Your task to perform on an android device: Add "usb-c" to the cart on bestbuy, then select checkout. Image 0: 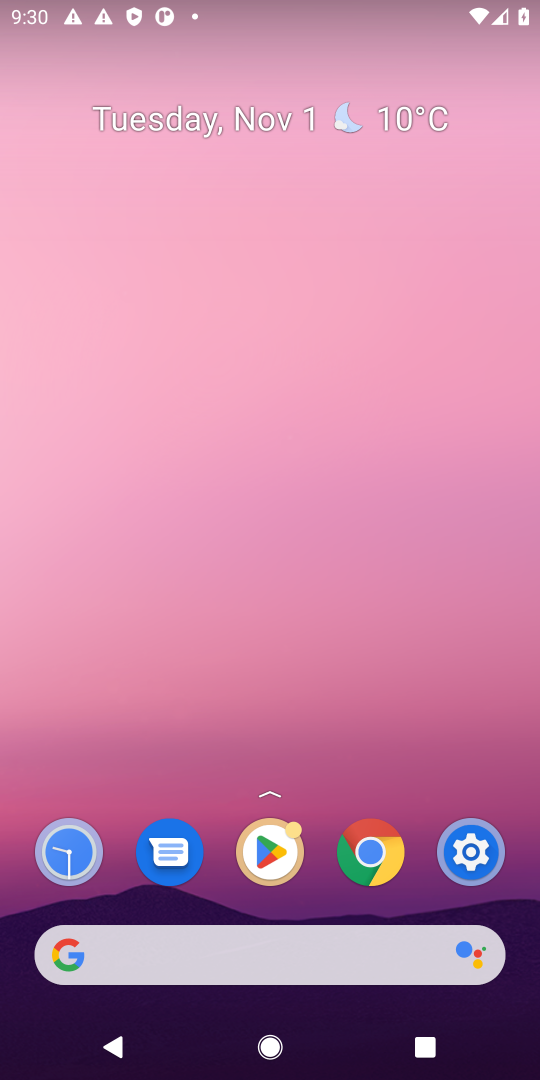
Step 0: press home button
Your task to perform on an android device: Add "usb-c" to the cart on bestbuy, then select checkout. Image 1: 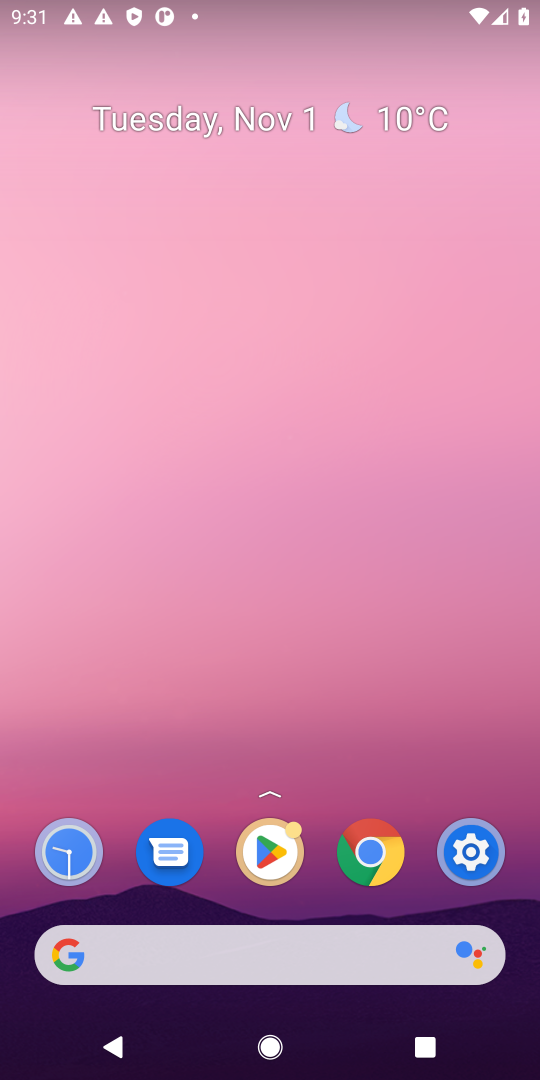
Step 1: click (63, 964)
Your task to perform on an android device: Add "usb-c" to the cart on bestbuy, then select checkout. Image 2: 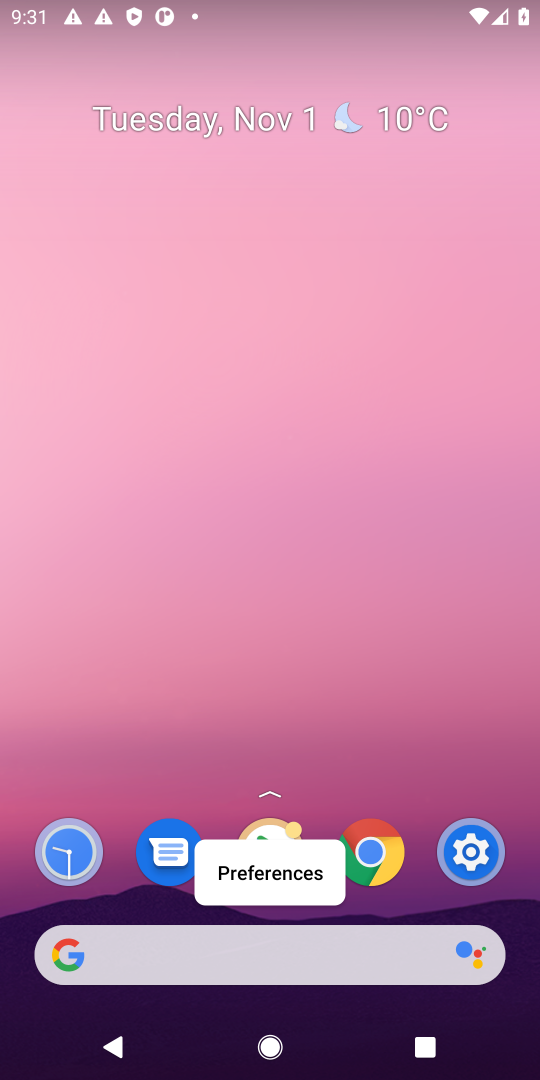
Step 2: click (70, 955)
Your task to perform on an android device: Add "usb-c" to the cart on bestbuy, then select checkout. Image 3: 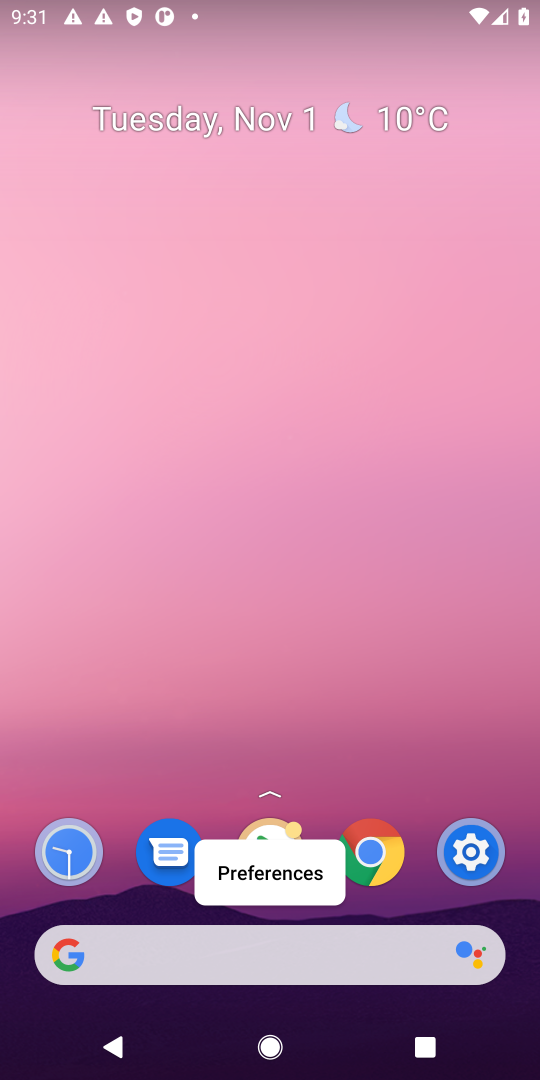
Step 3: click (75, 950)
Your task to perform on an android device: Add "usb-c" to the cart on bestbuy, then select checkout. Image 4: 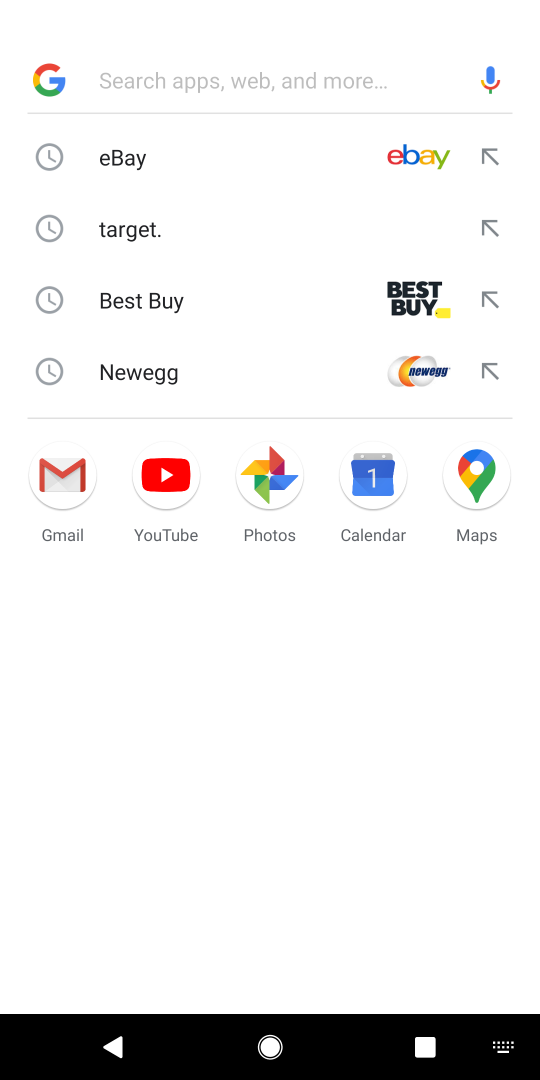
Step 4: click (127, 297)
Your task to perform on an android device: Add "usb-c" to the cart on bestbuy, then select checkout. Image 5: 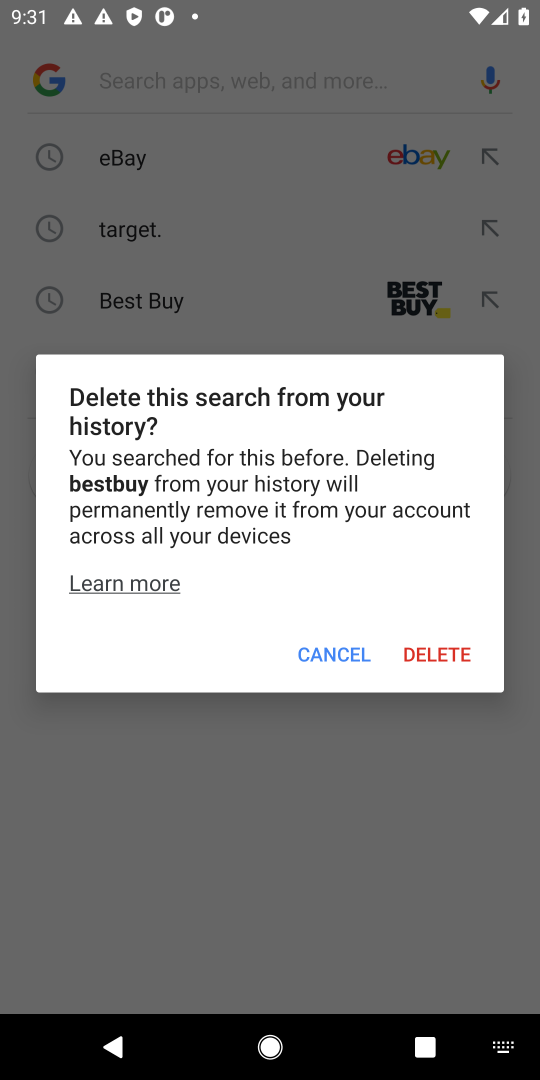
Step 5: click (315, 657)
Your task to perform on an android device: Add "usb-c" to the cart on bestbuy, then select checkout. Image 6: 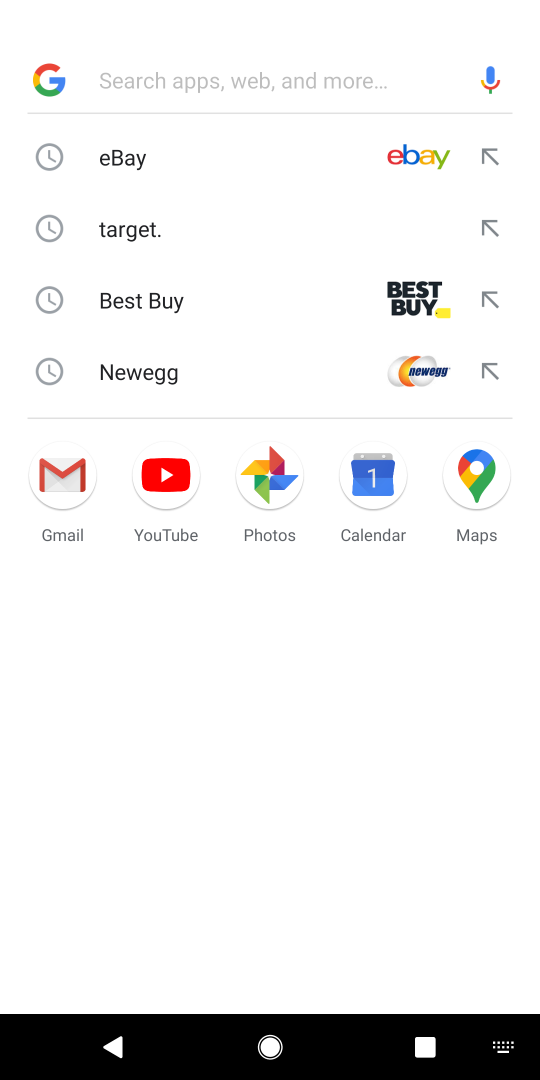
Step 6: click (428, 158)
Your task to perform on an android device: Add "usb-c" to the cart on bestbuy, then select checkout. Image 7: 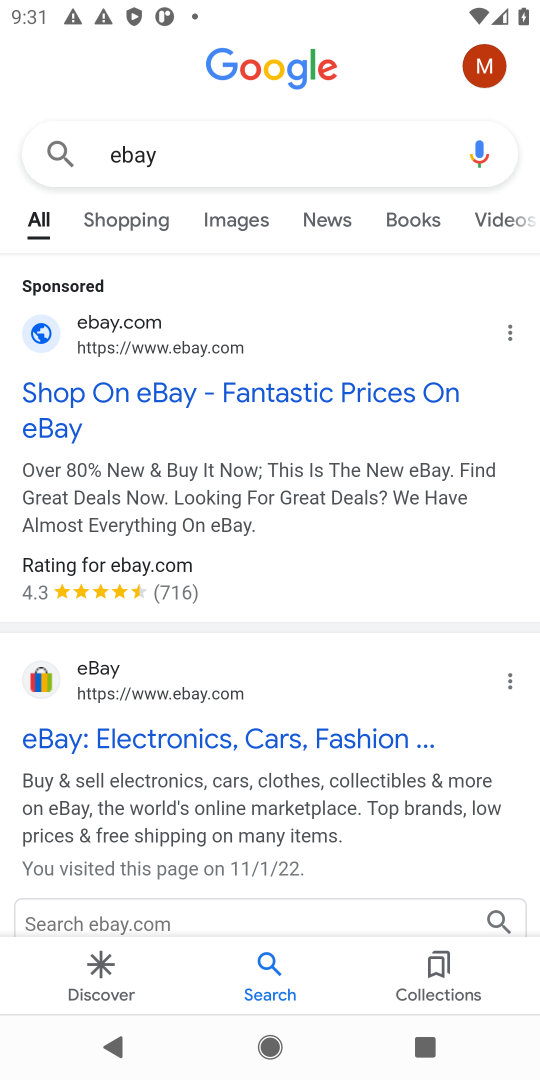
Step 7: click (279, 155)
Your task to perform on an android device: Add "usb-c" to the cart on bestbuy, then select checkout. Image 8: 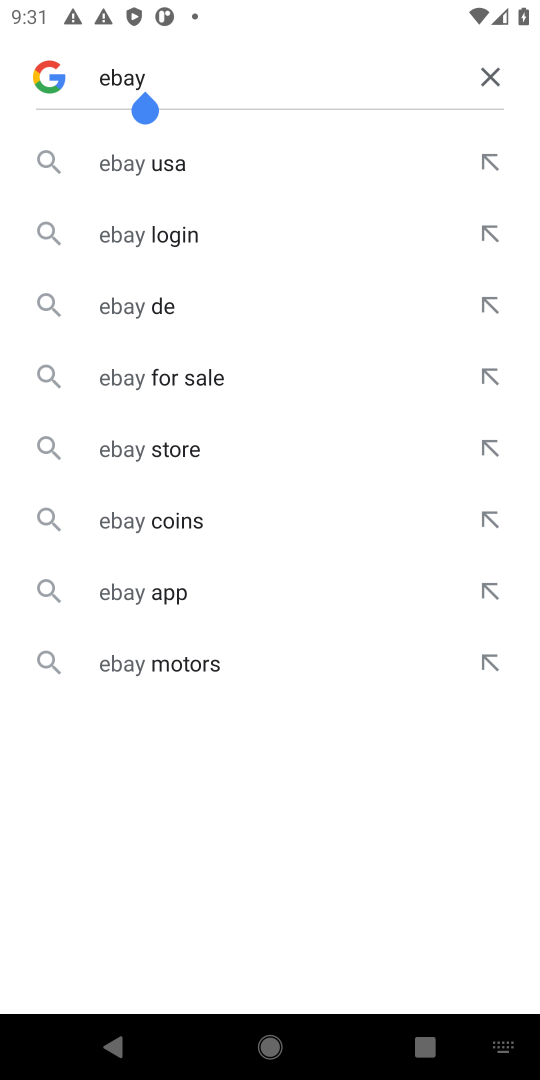
Step 8: click (491, 72)
Your task to perform on an android device: Add "usb-c" to the cart on bestbuy, then select checkout. Image 9: 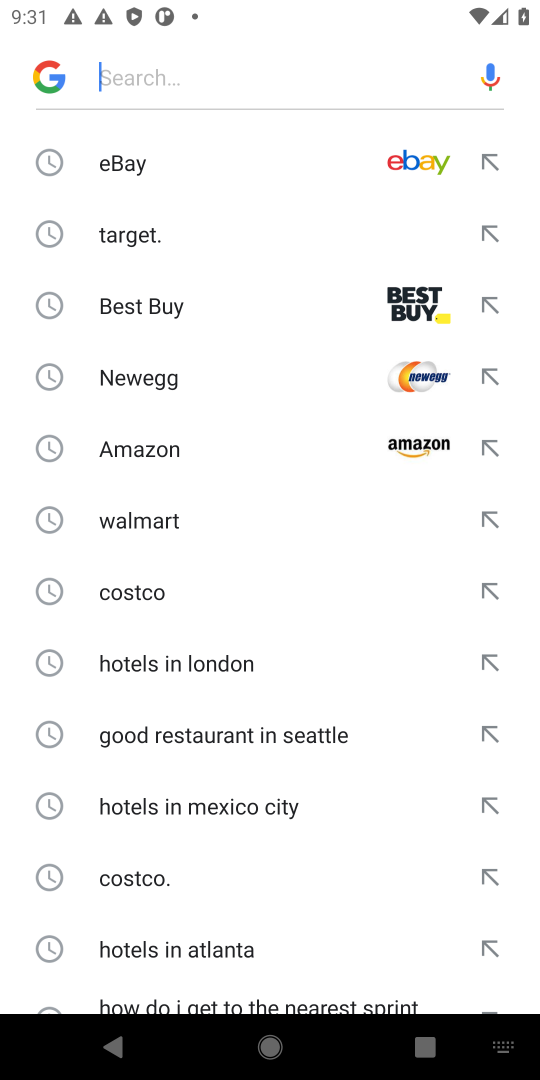
Step 9: click (136, 307)
Your task to perform on an android device: Add "usb-c" to the cart on bestbuy, then select checkout. Image 10: 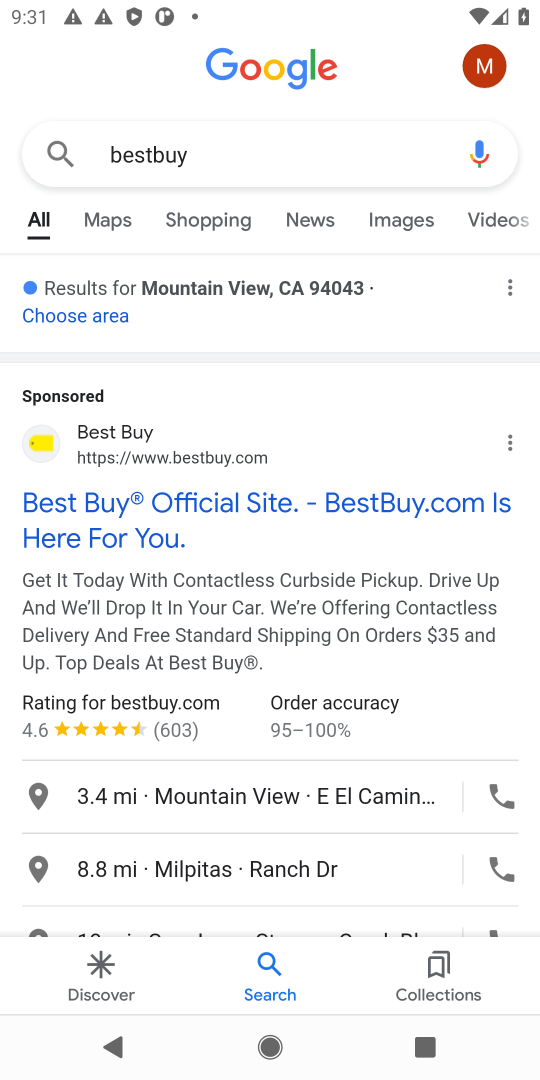
Step 10: drag from (430, 725) to (418, 307)
Your task to perform on an android device: Add "usb-c" to the cart on bestbuy, then select checkout. Image 11: 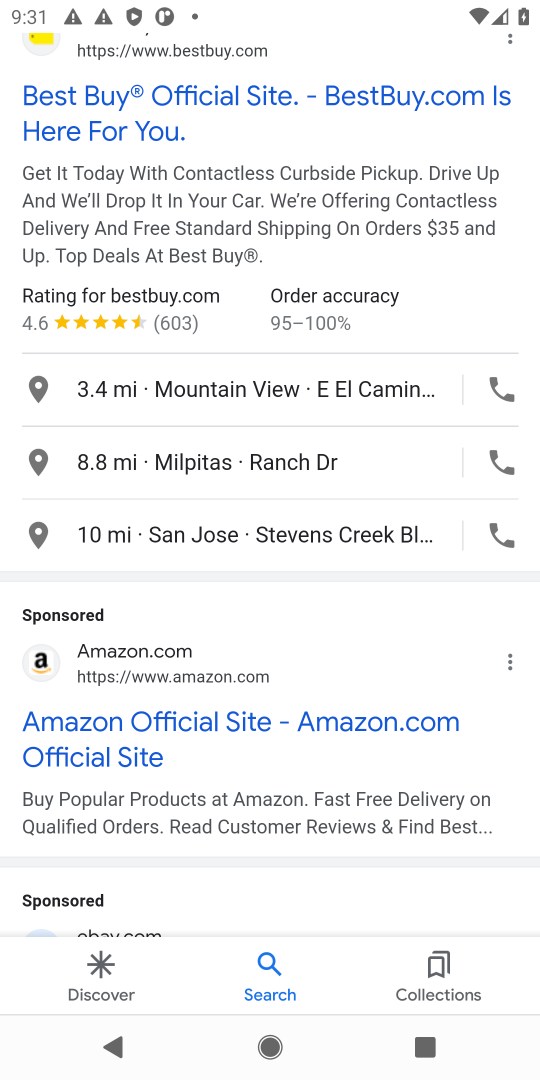
Step 11: click (136, 98)
Your task to perform on an android device: Add "usb-c" to the cart on bestbuy, then select checkout. Image 12: 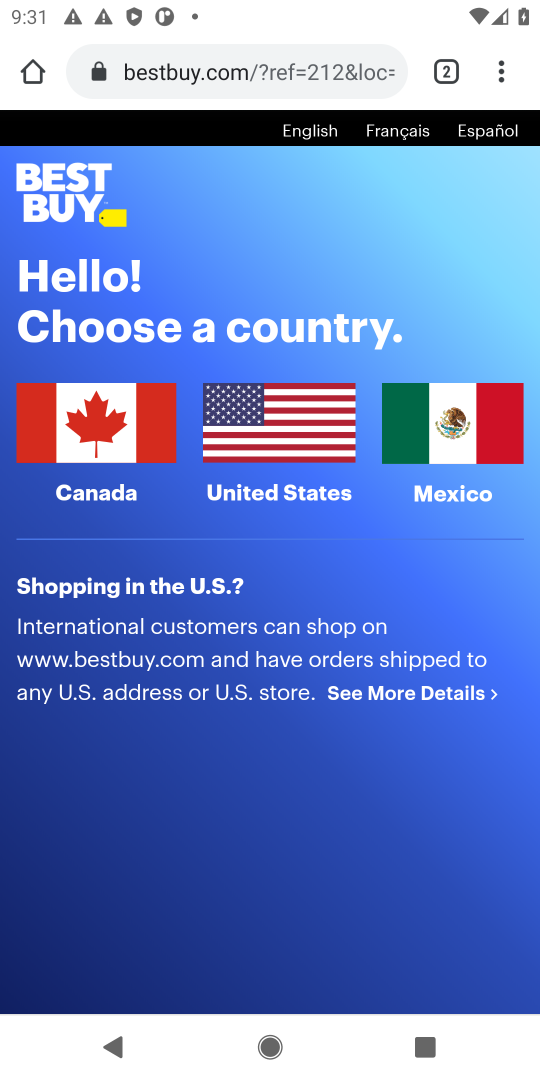
Step 12: click (250, 416)
Your task to perform on an android device: Add "usb-c" to the cart on bestbuy, then select checkout. Image 13: 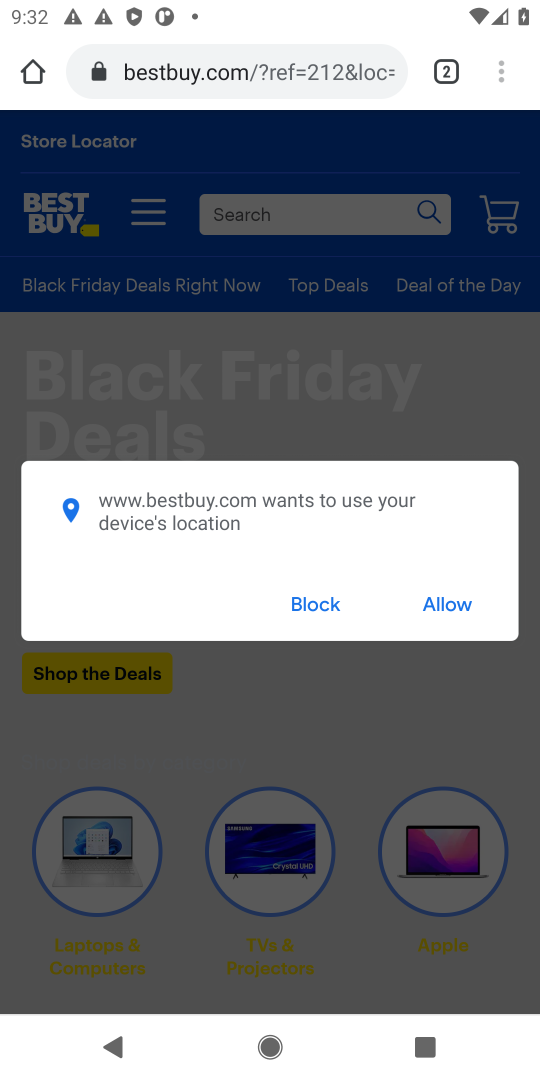
Step 13: type "usb-c"
Your task to perform on an android device: Add "usb-c" to the cart on bestbuy, then select checkout. Image 14: 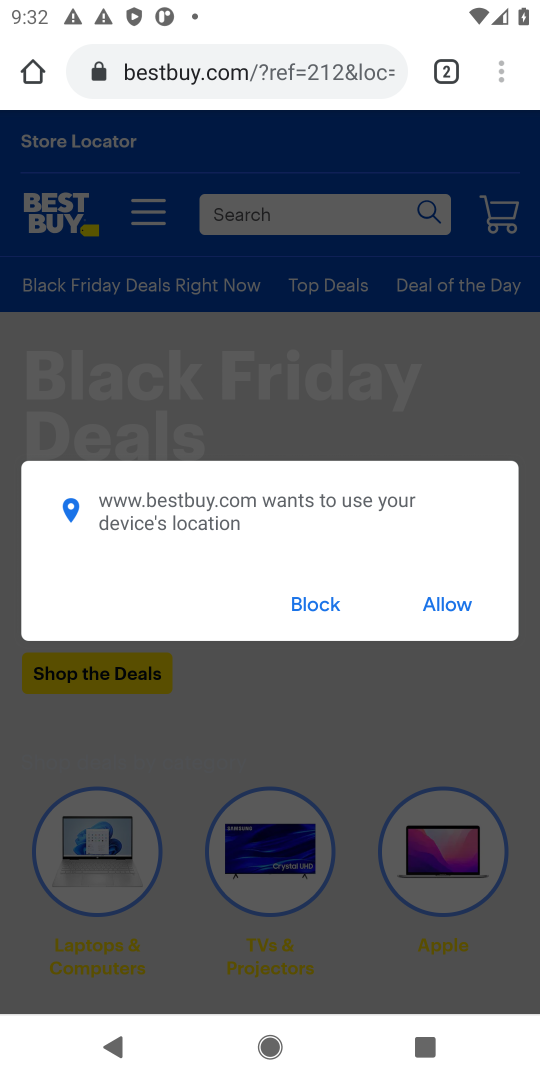
Step 14: click (458, 602)
Your task to perform on an android device: Add "usb-c" to the cart on bestbuy, then select checkout. Image 15: 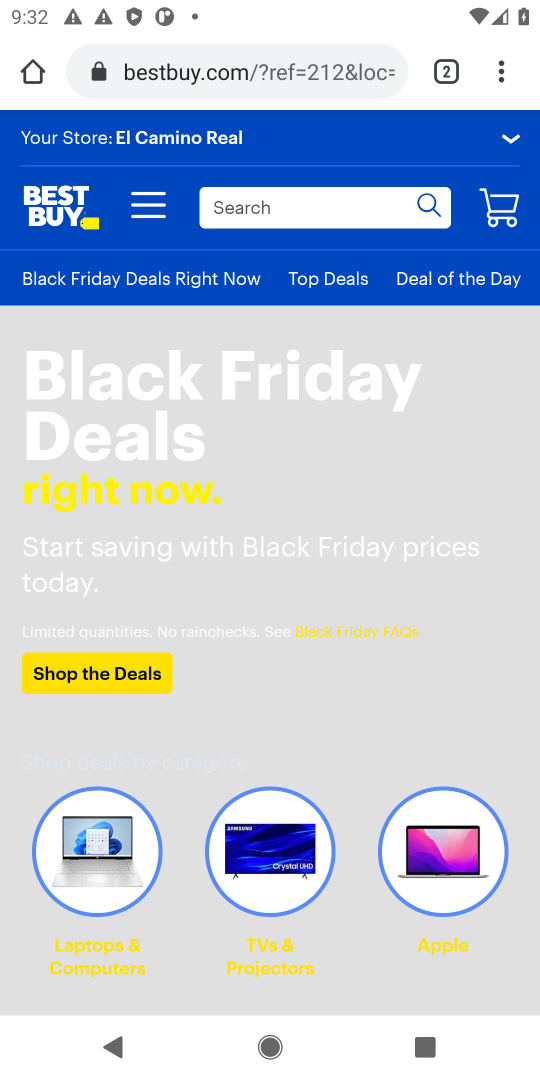
Step 15: click (289, 210)
Your task to perform on an android device: Add "usb-c" to the cart on bestbuy, then select checkout. Image 16: 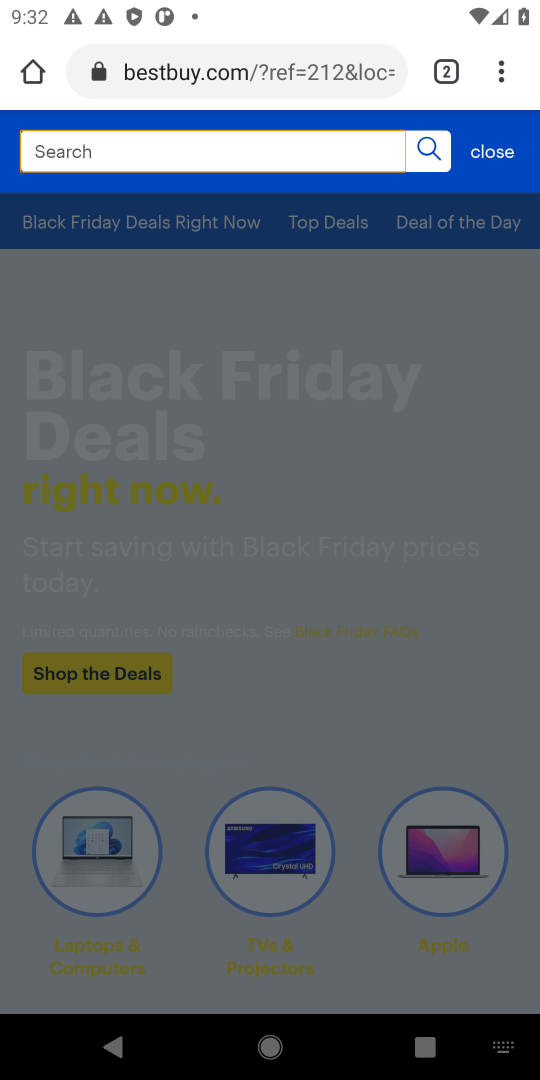
Step 16: type "usb-c"
Your task to perform on an android device: Add "usb-c" to the cart on bestbuy, then select checkout. Image 17: 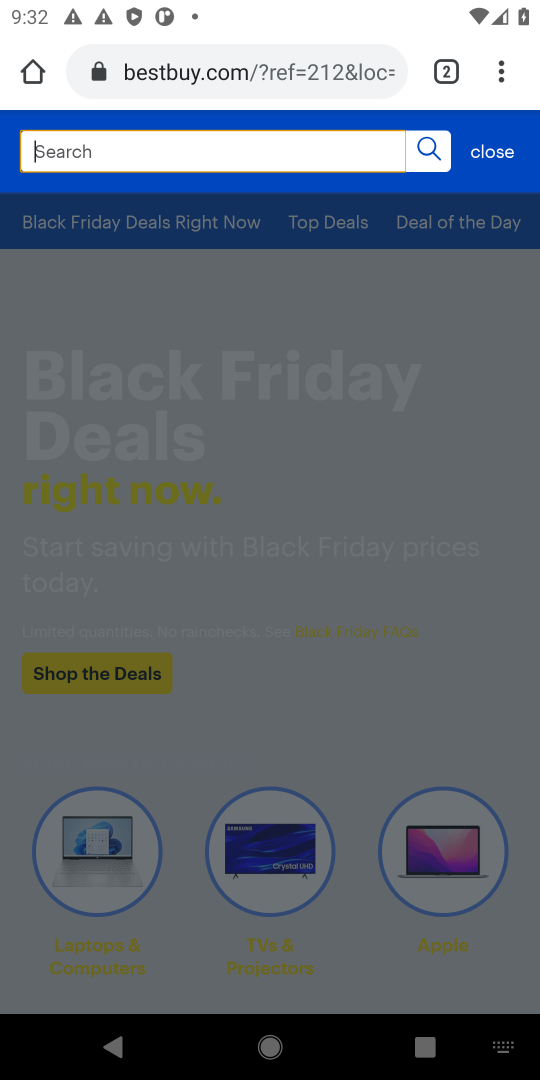
Step 17: click (97, 148)
Your task to perform on an android device: Add "usb-c" to the cart on bestbuy, then select checkout. Image 18: 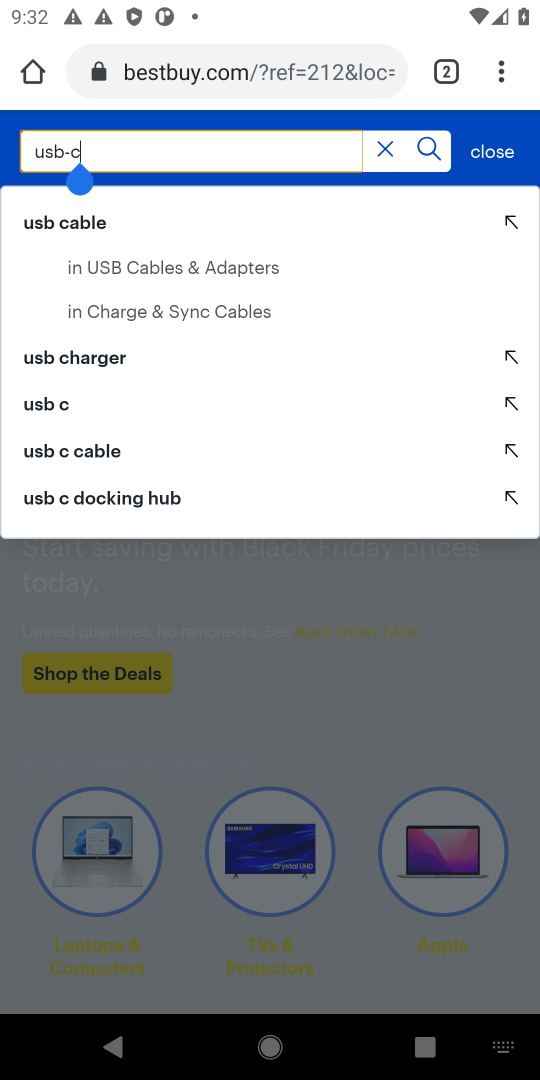
Step 18: press enter
Your task to perform on an android device: Add "usb-c" to the cart on bestbuy, then select checkout. Image 19: 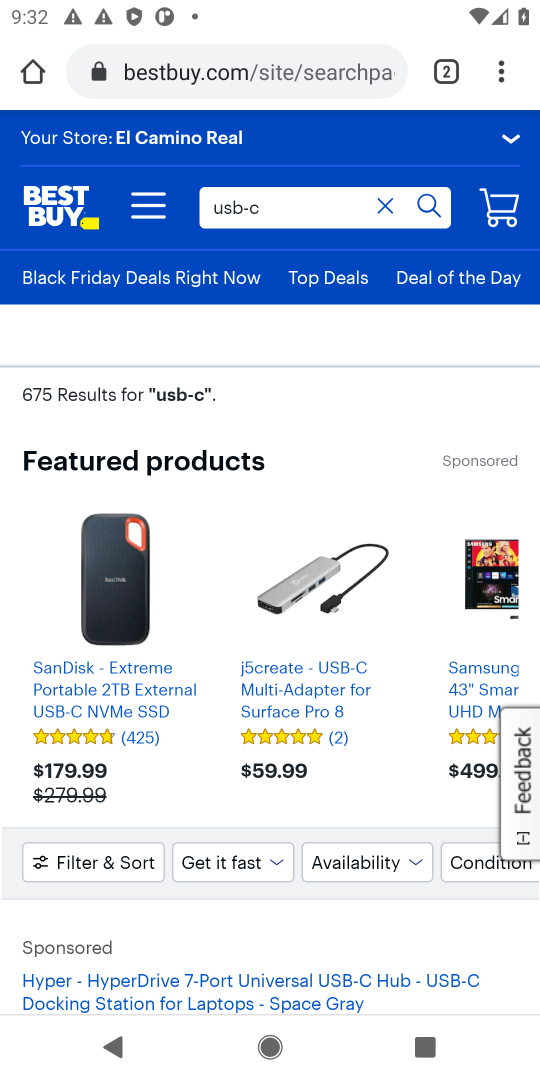
Step 19: drag from (232, 910) to (231, 407)
Your task to perform on an android device: Add "usb-c" to the cart on bestbuy, then select checkout. Image 20: 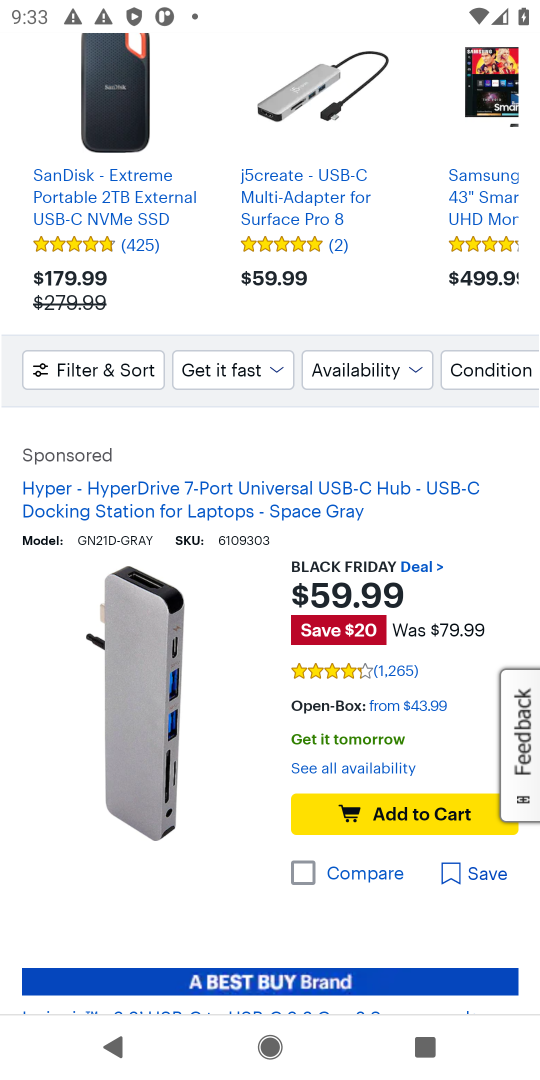
Step 20: click (205, 685)
Your task to perform on an android device: Add "usb-c" to the cart on bestbuy, then select checkout. Image 21: 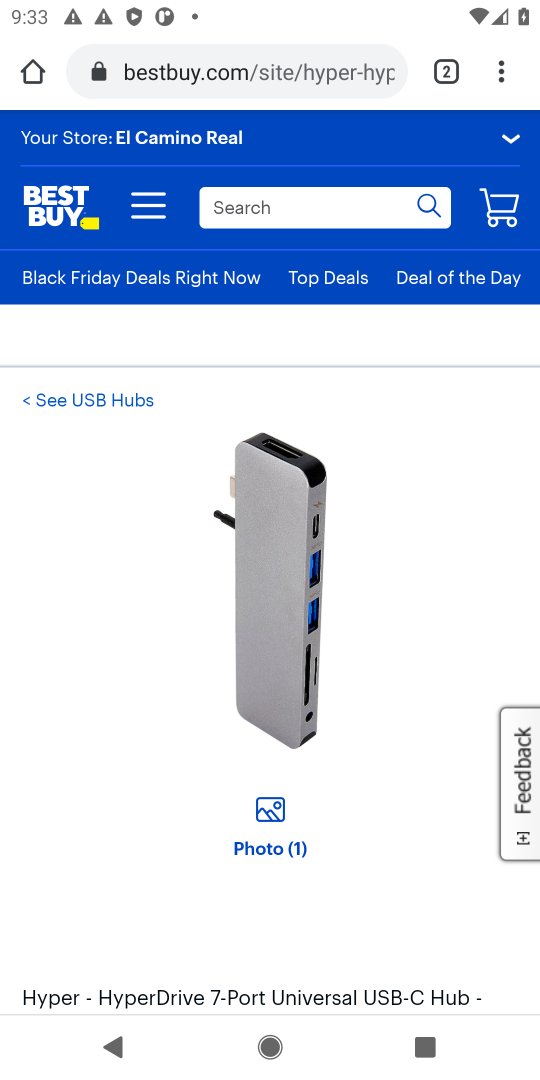
Step 21: drag from (339, 864) to (233, 86)
Your task to perform on an android device: Add "usb-c" to the cart on bestbuy, then select checkout. Image 22: 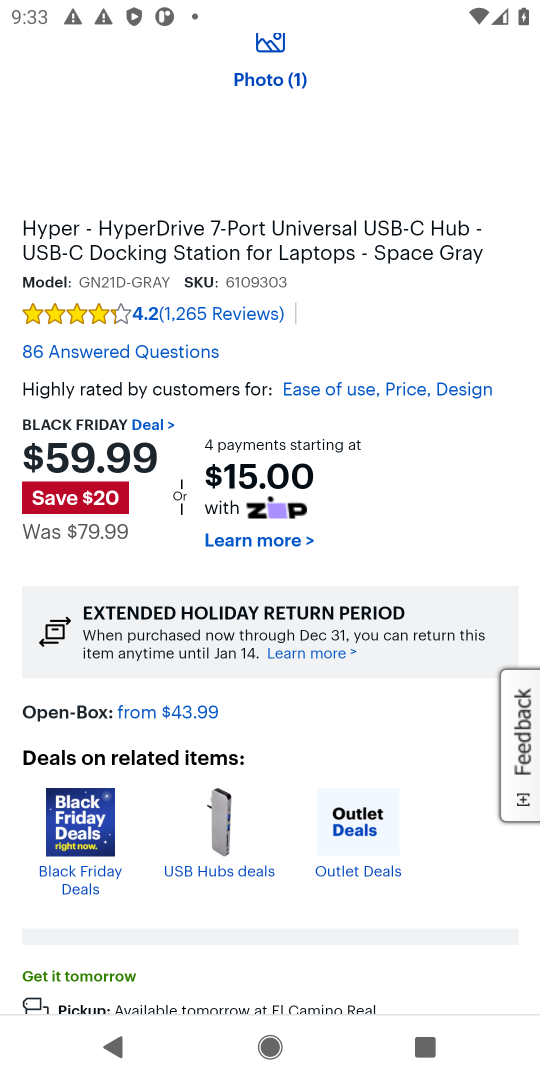
Step 22: drag from (285, 703) to (253, 244)
Your task to perform on an android device: Add "usb-c" to the cart on bestbuy, then select checkout. Image 23: 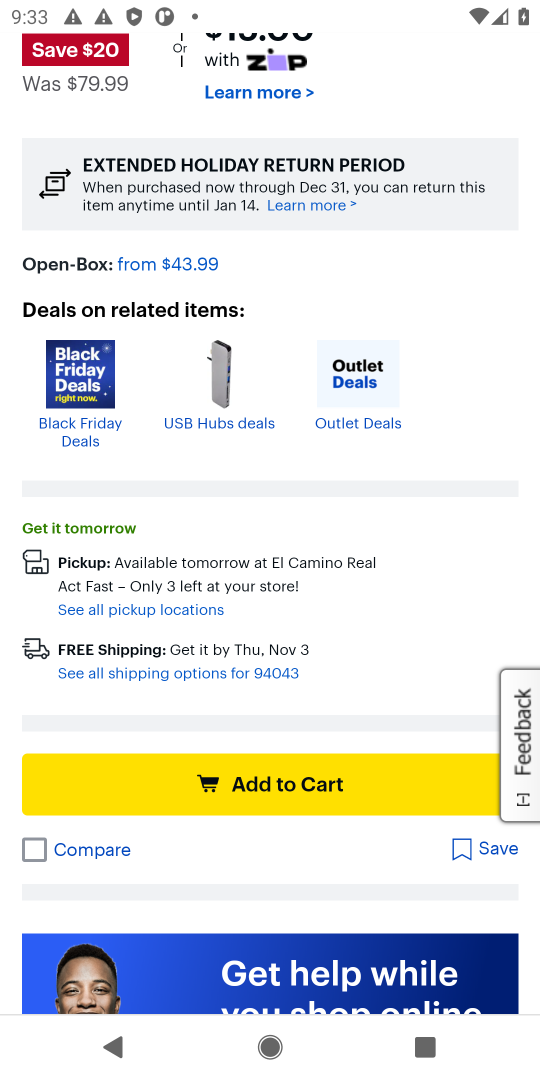
Step 23: click (258, 778)
Your task to perform on an android device: Add "usb-c" to the cart on bestbuy, then select checkout. Image 24: 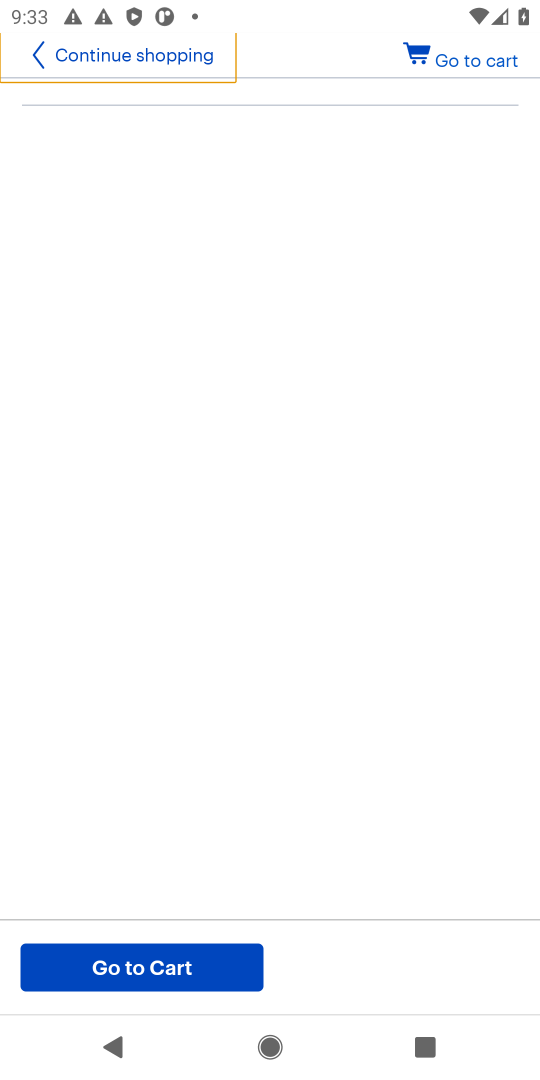
Step 24: drag from (396, 222) to (380, 748)
Your task to perform on an android device: Add "usb-c" to the cart on bestbuy, then select checkout. Image 25: 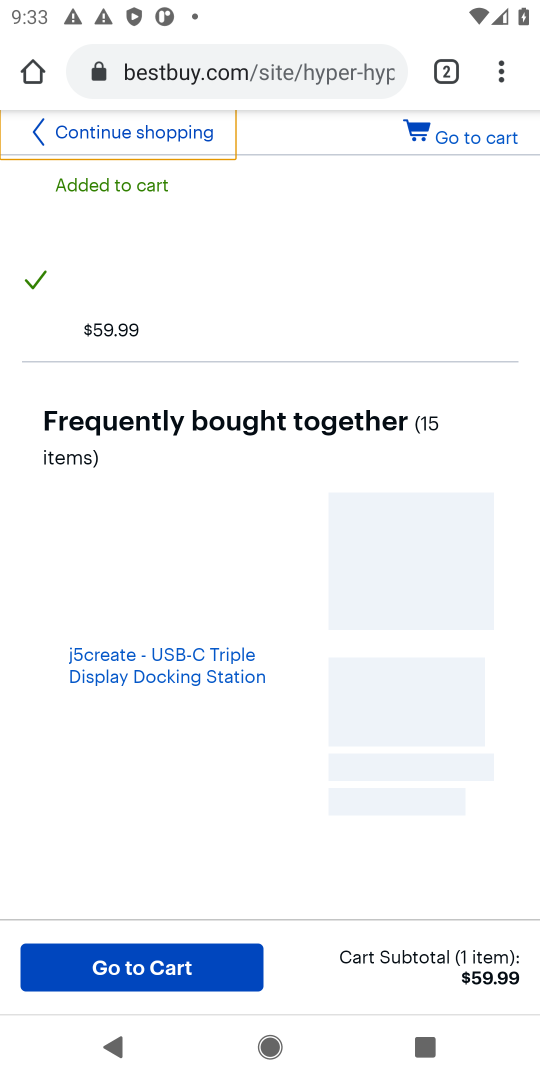
Step 25: click (478, 137)
Your task to perform on an android device: Add "usb-c" to the cart on bestbuy, then select checkout. Image 26: 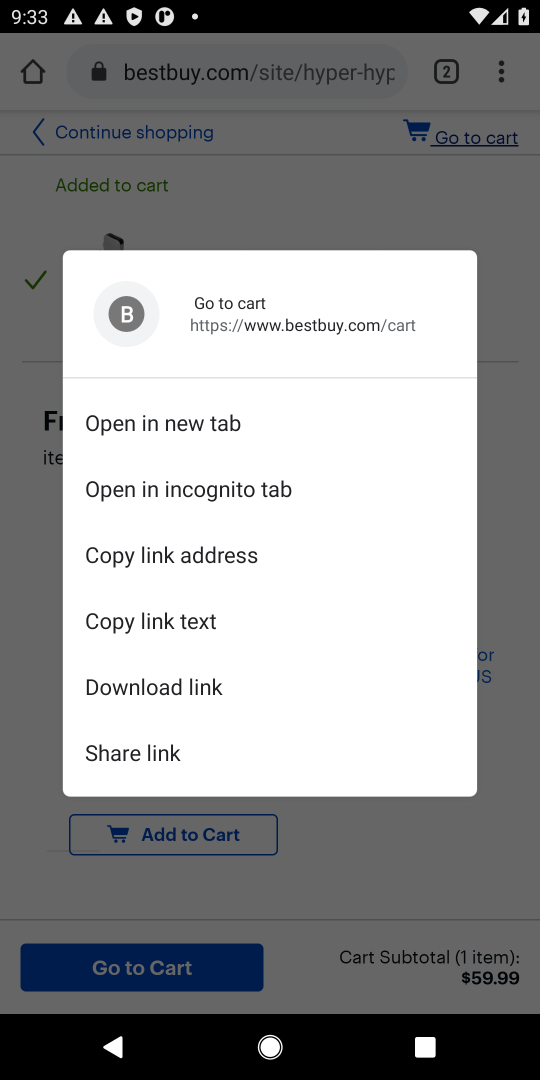
Step 26: click (442, 145)
Your task to perform on an android device: Add "usb-c" to the cart on bestbuy, then select checkout. Image 27: 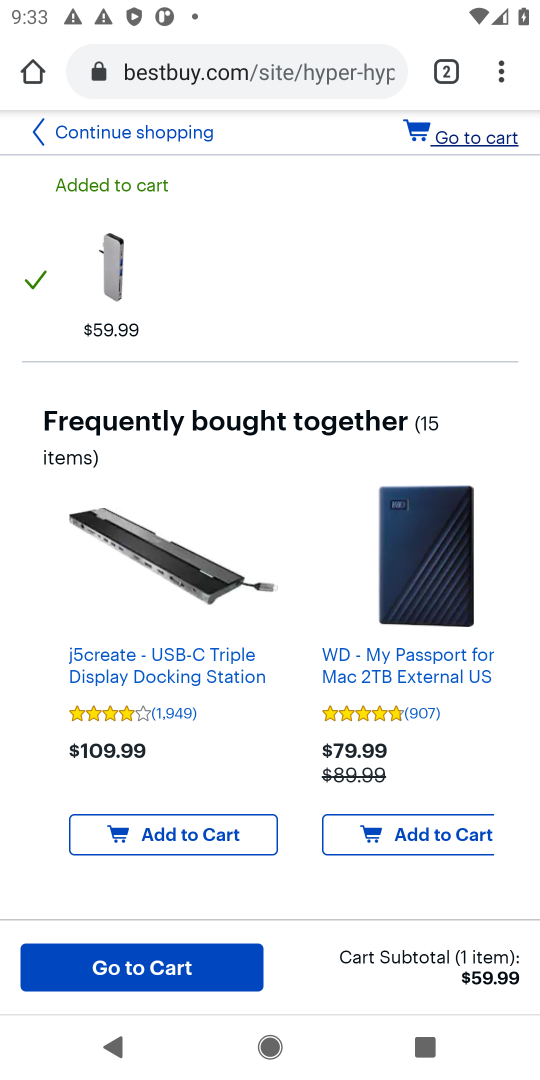
Step 27: click (194, 965)
Your task to perform on an android device: Add "usb-c" to the cart on bestbuy, then select checkout. Image 28: 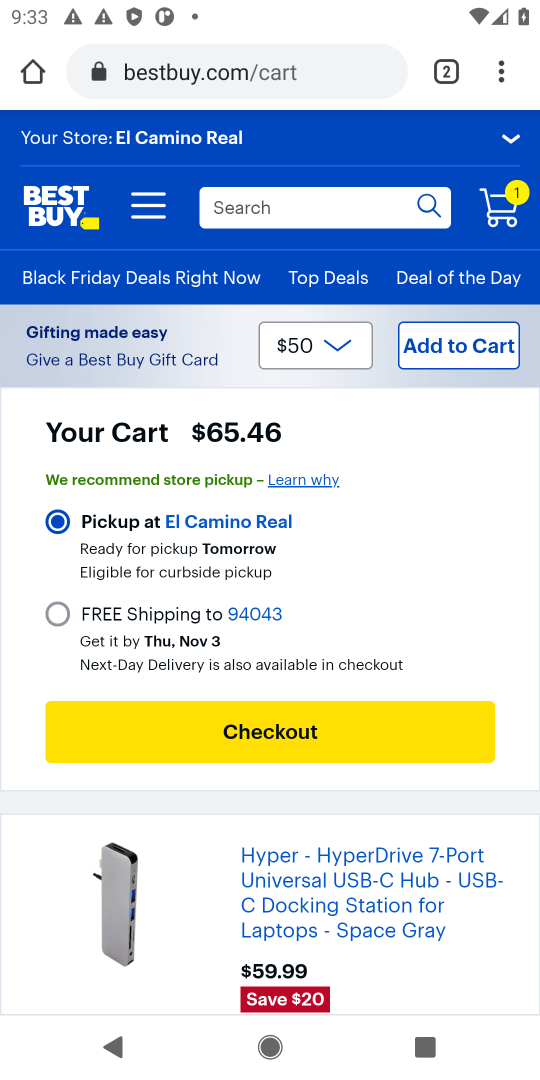
Step 28: click (243, 722)
Your task to perform on an android device: Add "usb-c" to the cart on bestbuy, then select checkout. Image 29: 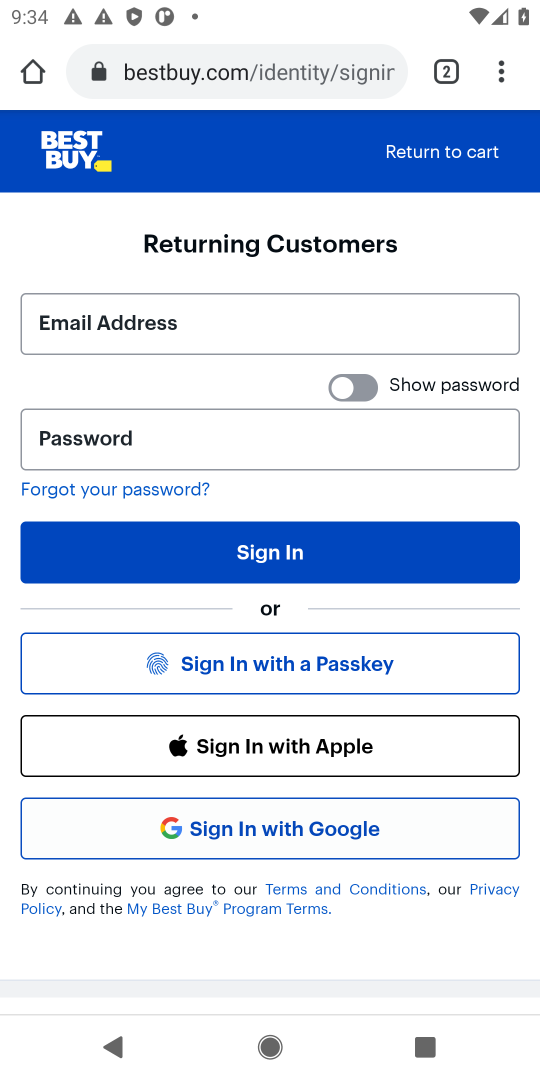
Step 29: task complete